Your task to perform on an android device: open a new tab in the chrome app Image 0: 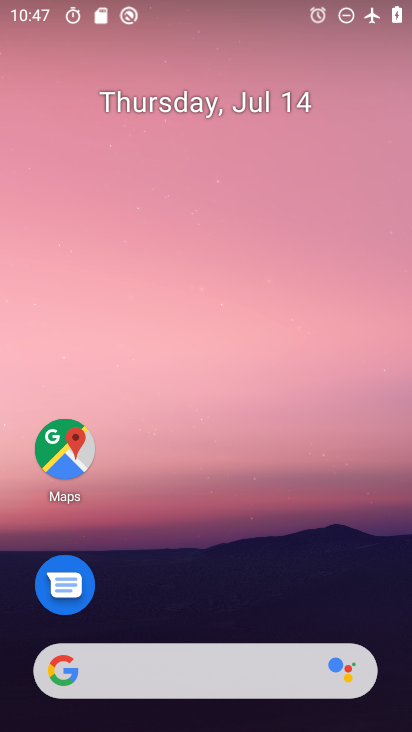
Step 0: drag from (241, 601) to (128, 99)
Your task to perform on an android device: open a new tab in the chrome app Image 1: 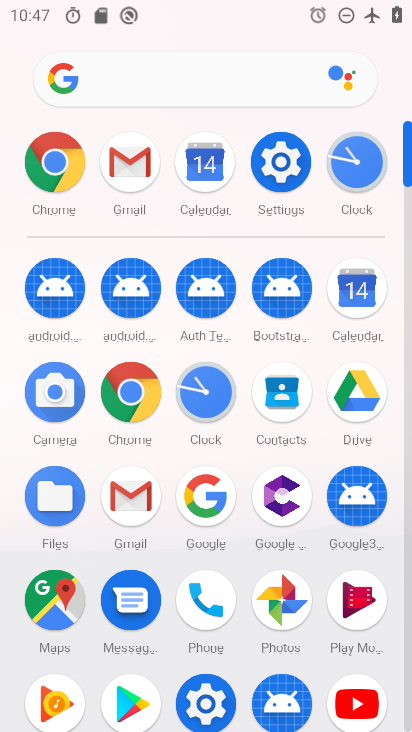
Step 1: click (63, 175)
Your task to perform on an android device: open a new tab in the chrome app Image 2: 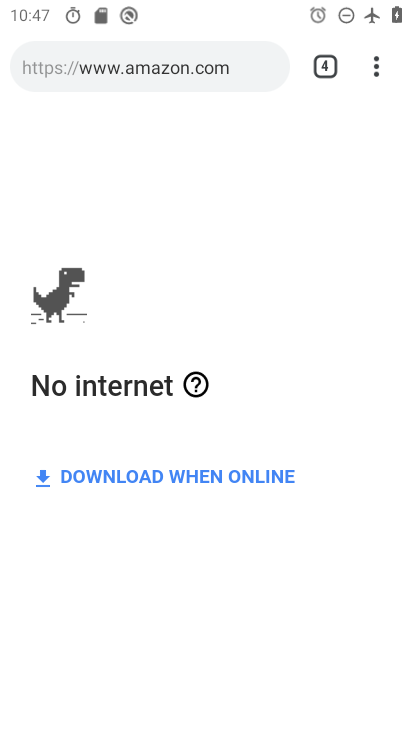
Step 2: click (319, 72)
Your task to perform on an android device: open a new tab in the chrome app Image 3: 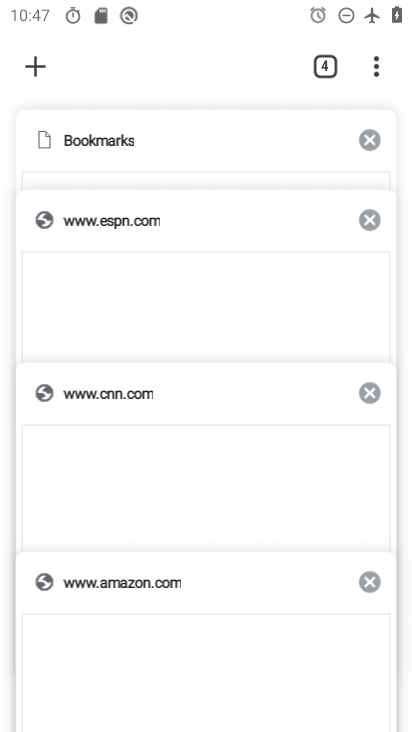
Step 3: click (38, 64)
Your task to perform on an android device: open a new tab in the chrome app Image 4: 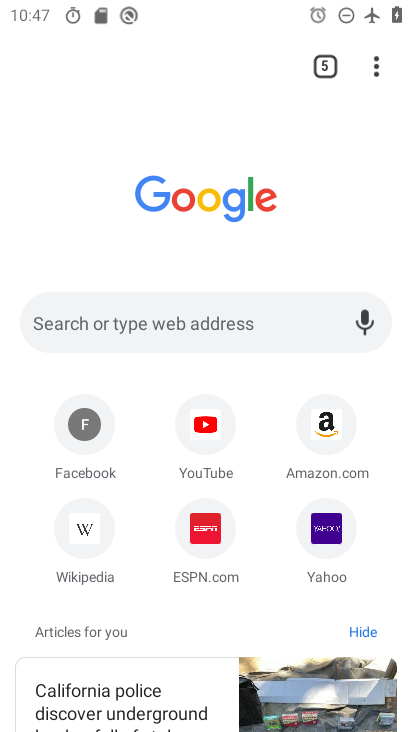
Step 4: task complete